Your task to perform on an android device: toggle improve location accuracy Image 0: 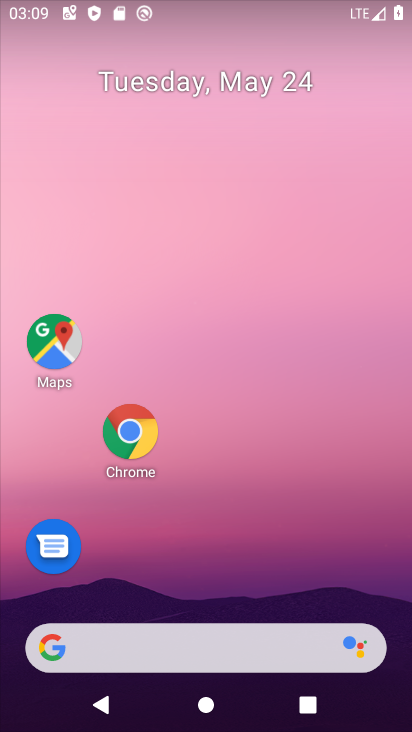
Step 0: drag from (235, 467) to (283, 8)
Your task to perform on an android device: toggle improve location accuracy Image 1: 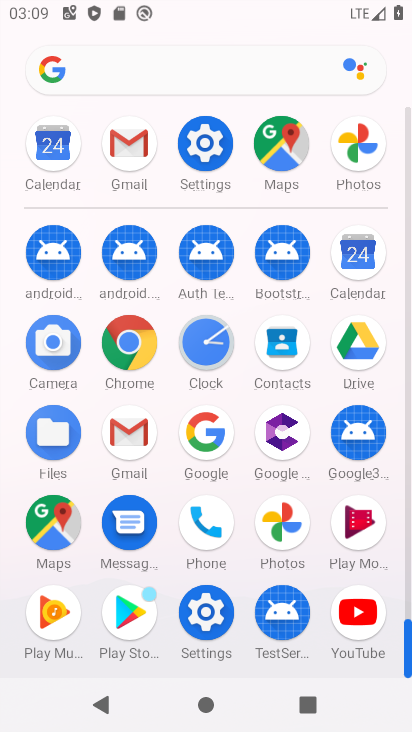
Step 1: click (203, 605)
Your task to perform on an android device: toggle improve location accuracy Image 2: 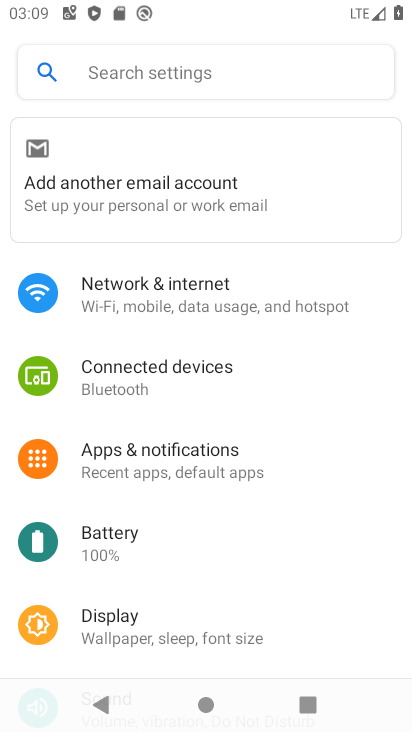
Step 2: drag from (175, 614) to (265, 150)
Your task to perform on an android device: toggle improve location accuracy Image 3: 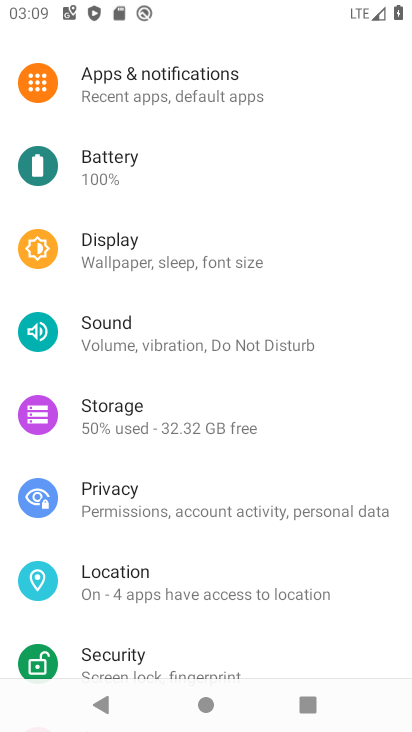
Step 3: click (124, 558)
Your task to perform on an android device: toggle improve location accuracy Image 4: 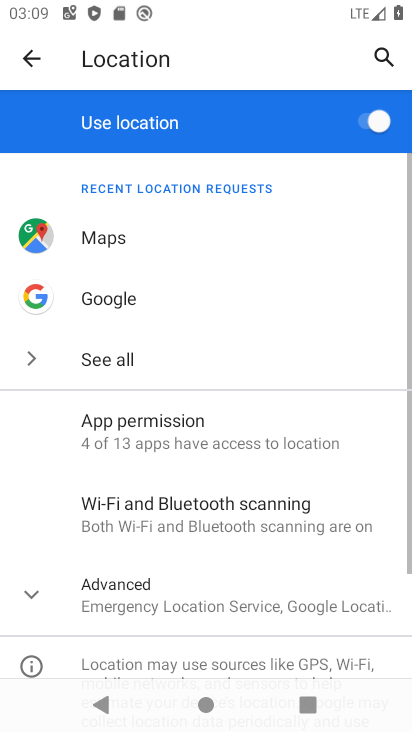
Step 4: click (152, 615)
Your task to perform on an android device: toggle improve location accuracy Image 5: 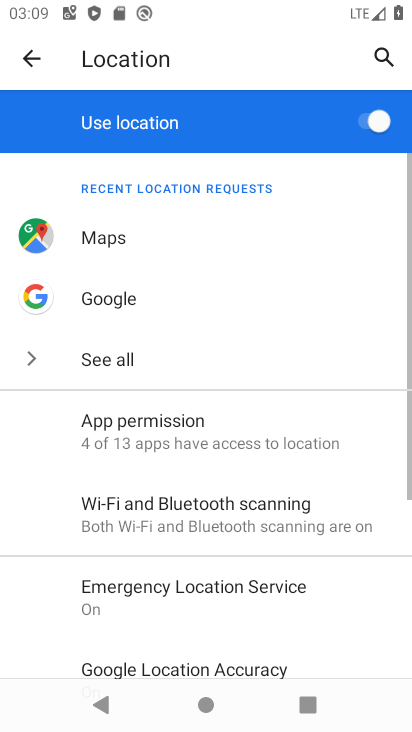
Step 5: drag from (263, 517) to (373, 64)
Your task to perform on an android device: toggle improve location accuracy Image 6: 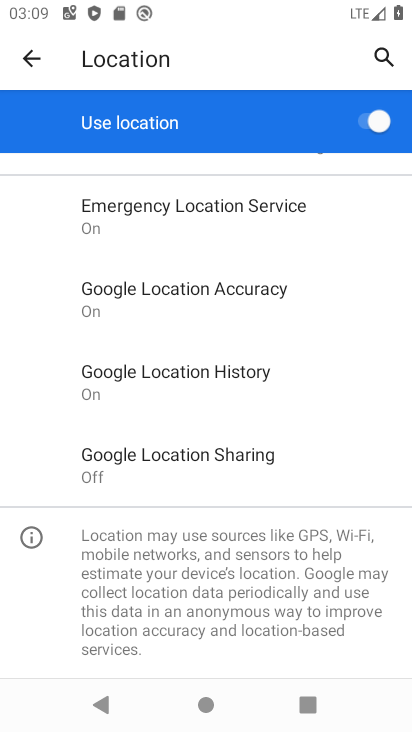
Step 6: click (209, 310)
Your task to perform on an android device: toggle improve location accuracy Image 7: 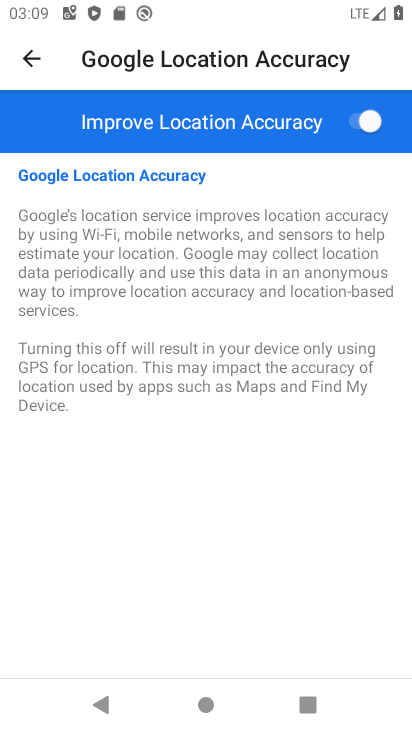
Step 7: click (364, 114)
Your task to perform on an android device: toggle improve location accuracy Image 8: 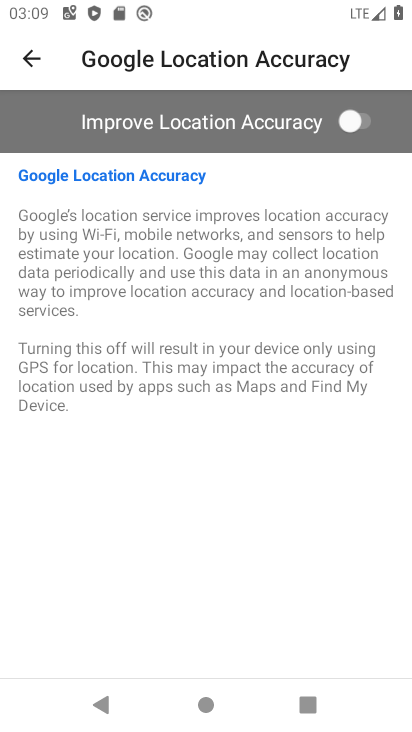
Step 8: task complete